Your task to perform on an android device: open app "Booking.com: Hotels and more" (install if not already installed) and enter user name: "misting@outlook.com" and password: "blandly" Image 0: 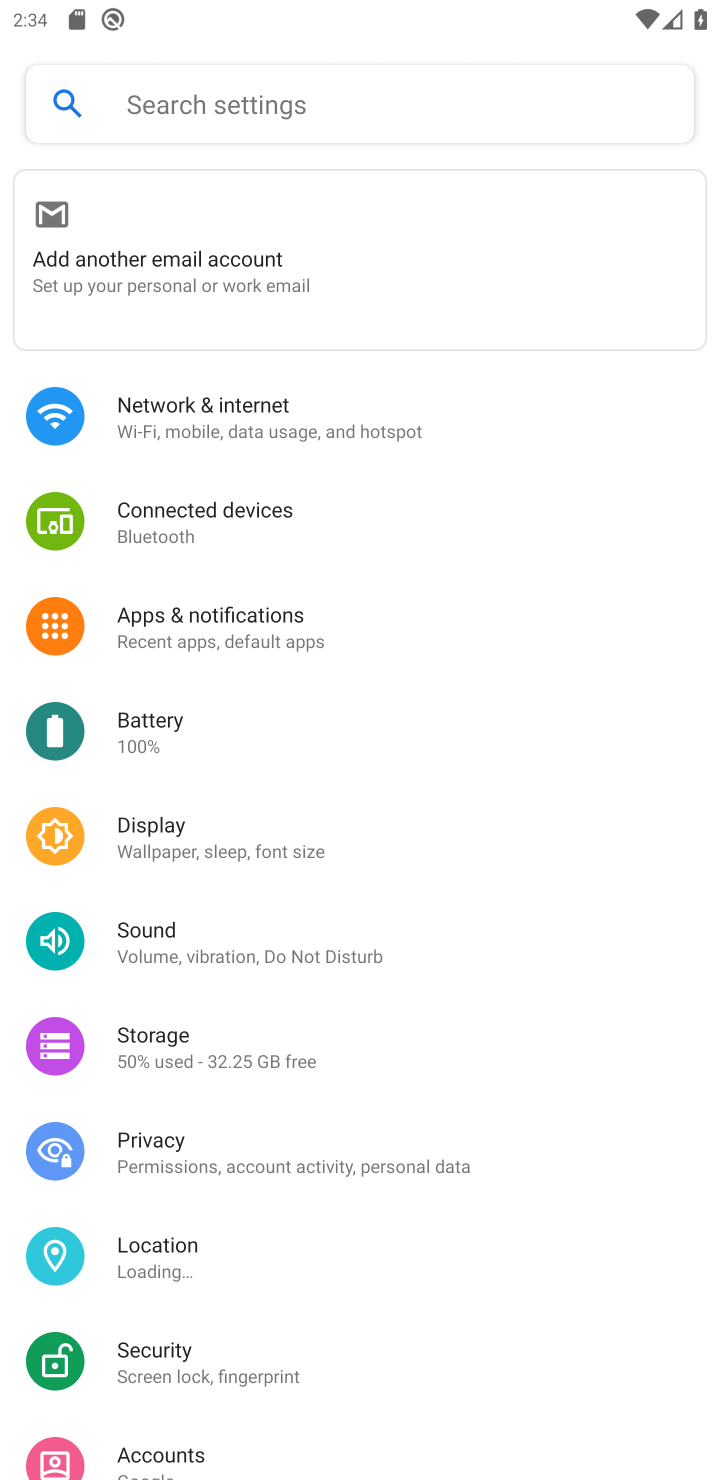
Step 0: press home button
Your task to perform on an android device: open app "Booking.com: Hotels and more" (install if not already installed) and enter user name: "misting@outlook.com" and password: "blandly" Image 1: 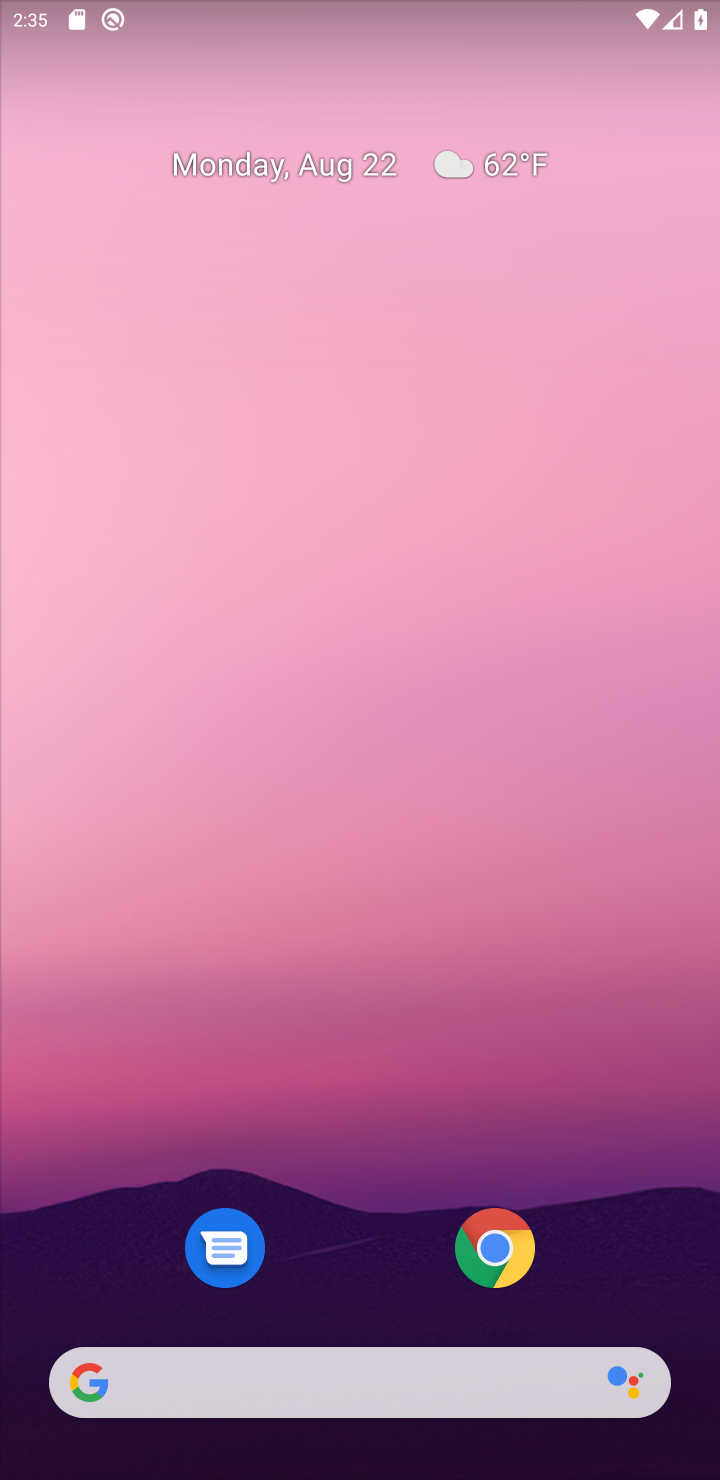
Step 1: drag from (289, 869) to (527, 26)
Your task to perform on an android device: open app "Booking.com: Hotels and more" (install if not already installed) and enter user name: "misting@outlook.com" and password: "blandly" Image 2: 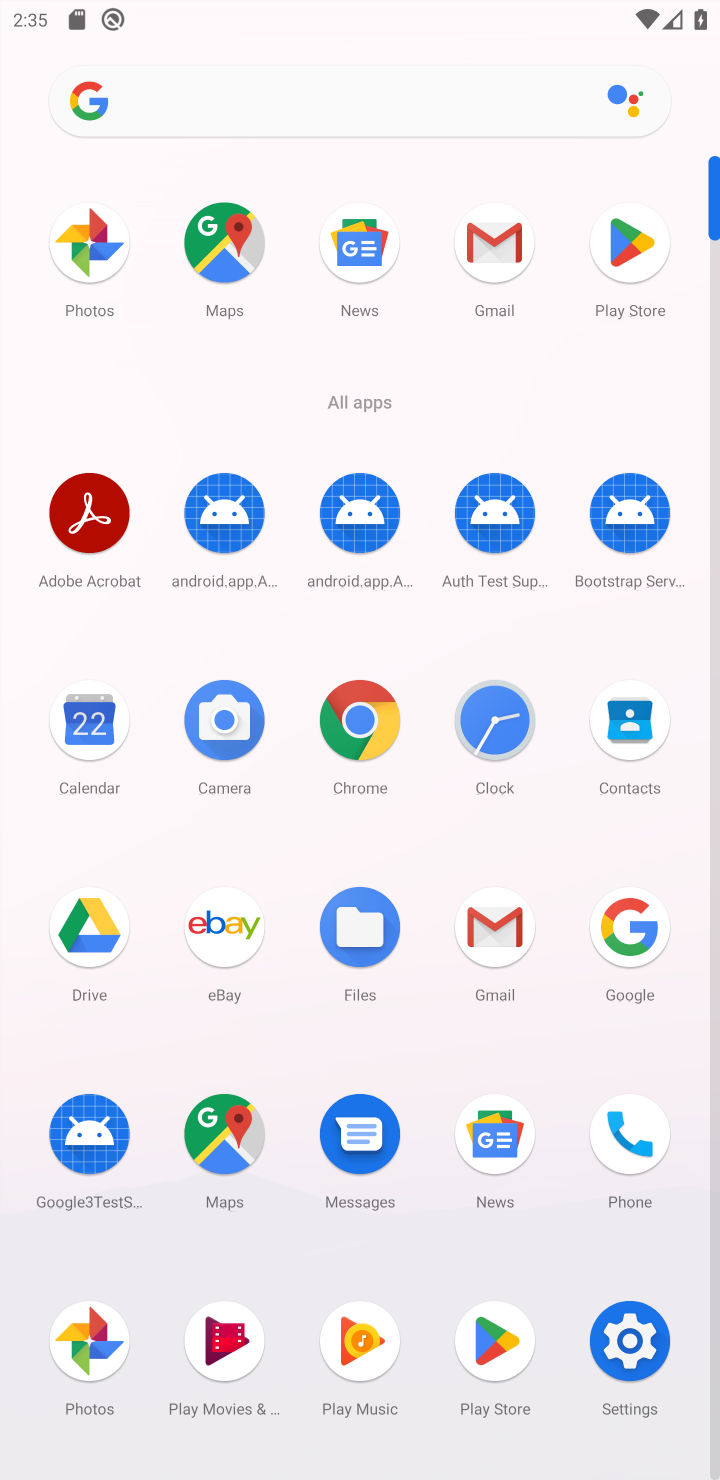
Step 2: click (635, 242)
Your task to perform on an android device: open app "Booking.com: Hotels and more" (install if not already installed) and enter user name: "misting@outlook.com" and password: "blandly" Image 3: 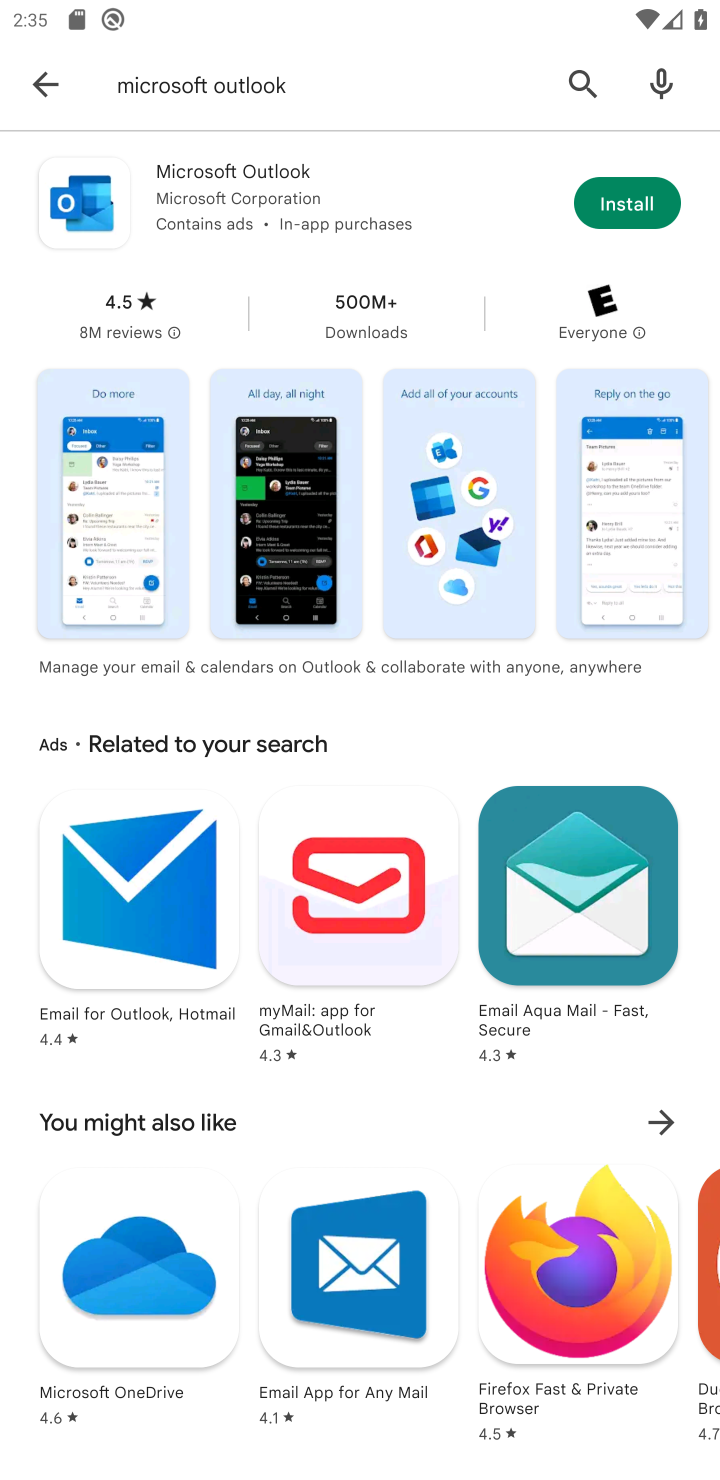
Step 3: click (321, 91)
Your task to perform on an android device: open app "Booking.com: Hotels and more" (install if not already installed) and enter user name: "misting@outlook.com" and password: "blandly" Image 4: 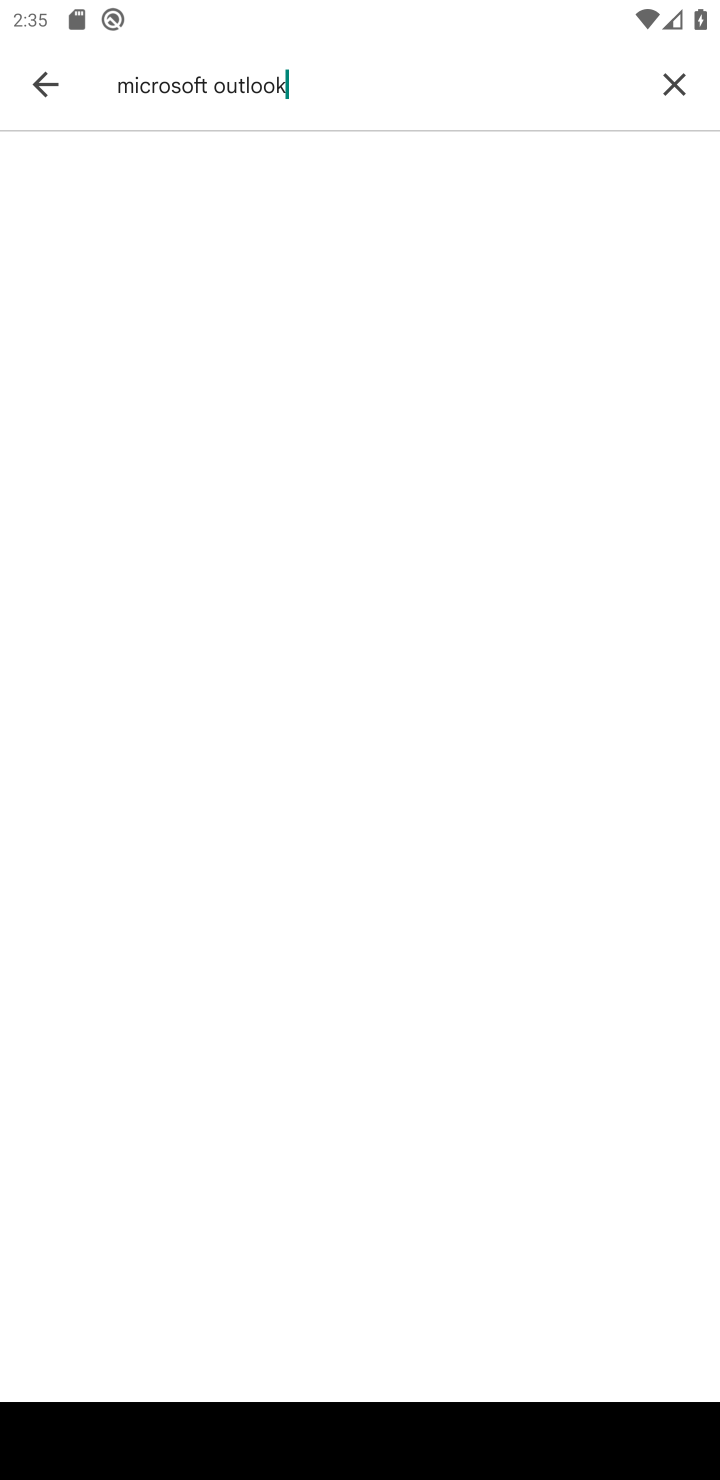
Step 4: click (673, 69)
Your task to perform on an android device: open app "Booking.com: Hotels and more" (install if not already installed) and enter user name: "misting@outlook.com" and password: "blandly" Image 5: 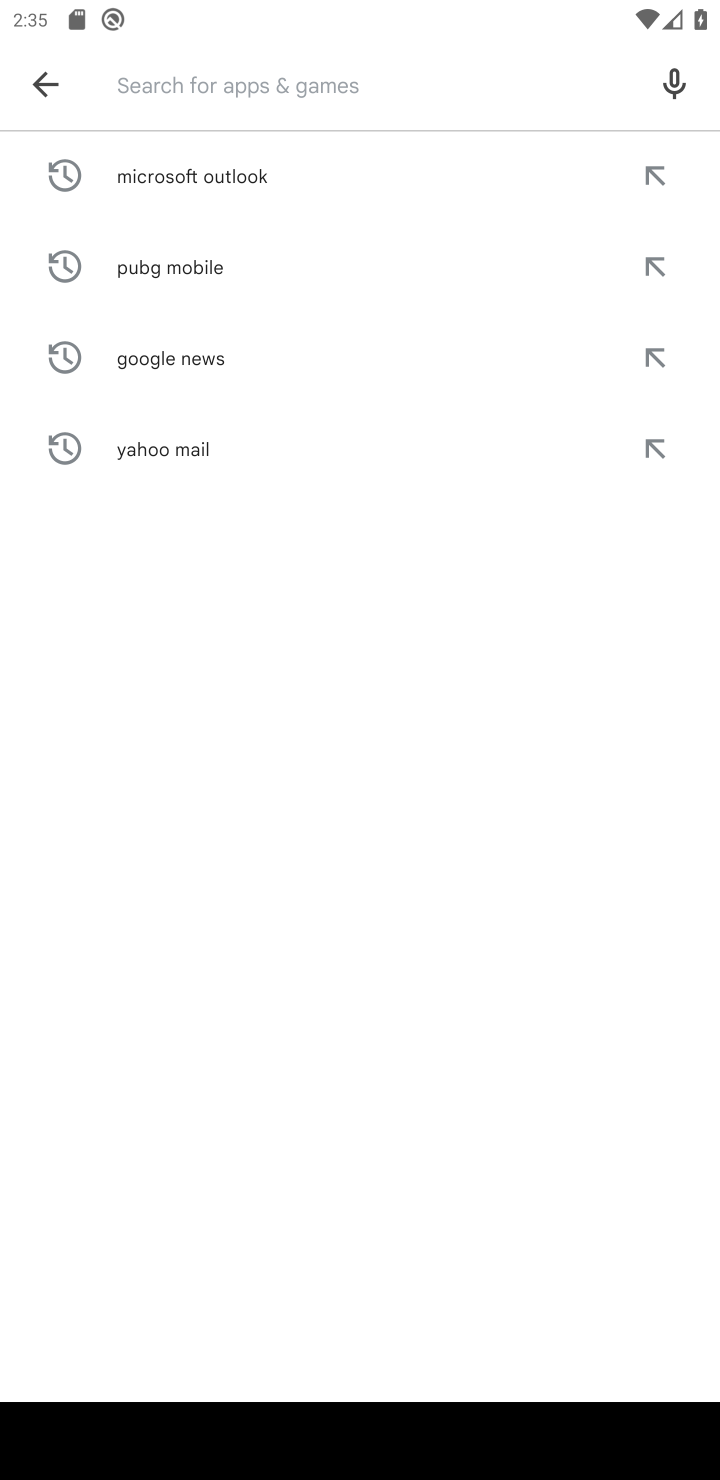
Step 5: type "Booking.com"
Your task to perform on an android device: open app "Booking.com: Hotels and more" (install if not already installed) and enter user name: "misting@outlook.com" and password: "blandly" Image 6: 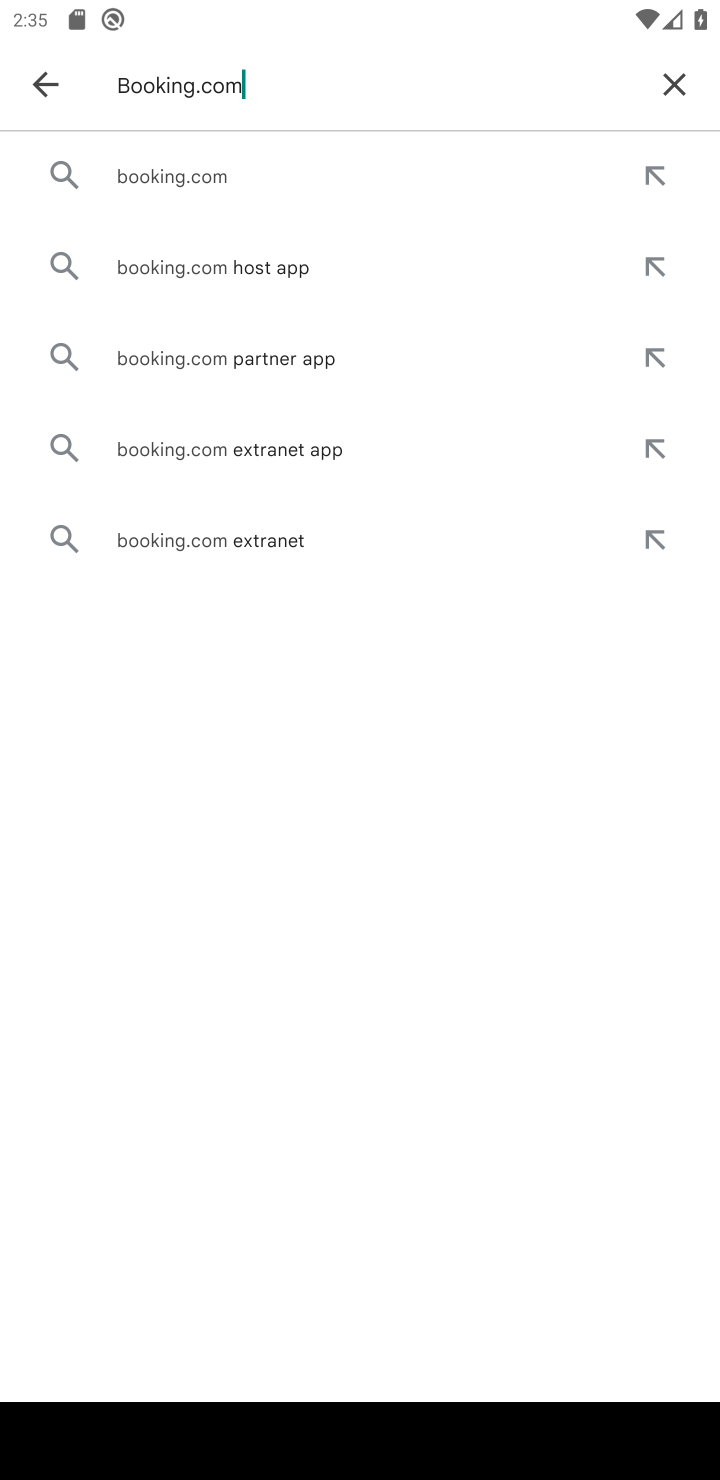
Step 6: click (197, 180)
Your task to perform on an android device: open app "Booking.com: Hotels and more" (install if not already installed) and enter user name: "misting@outlook.com" and password: "blandly" Image 7: 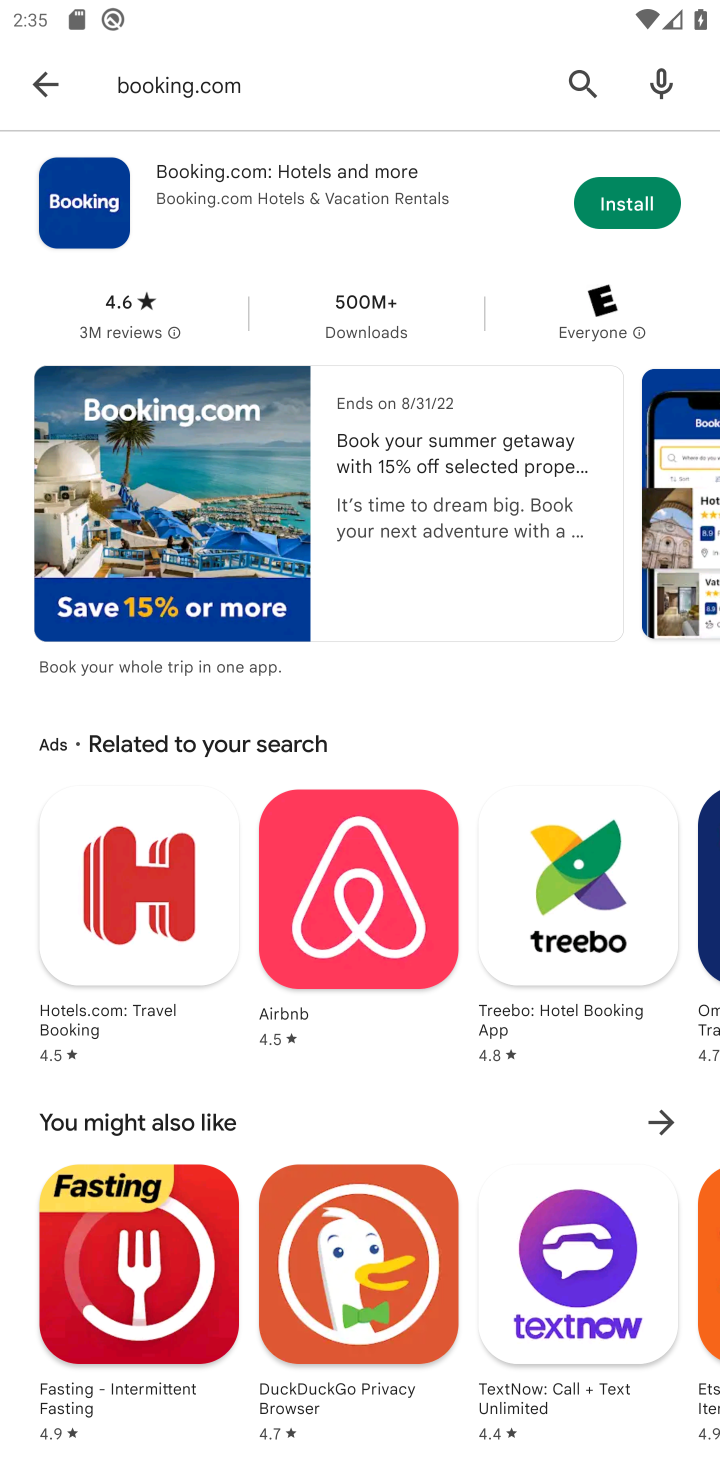
Step 7: click (618, 208)
Your task to perform on an android device: open app "Booking.com: Hotels and more" (install if not already installed) and enter user name: "misting@outlook.com" and password: "blandly" Image 8: 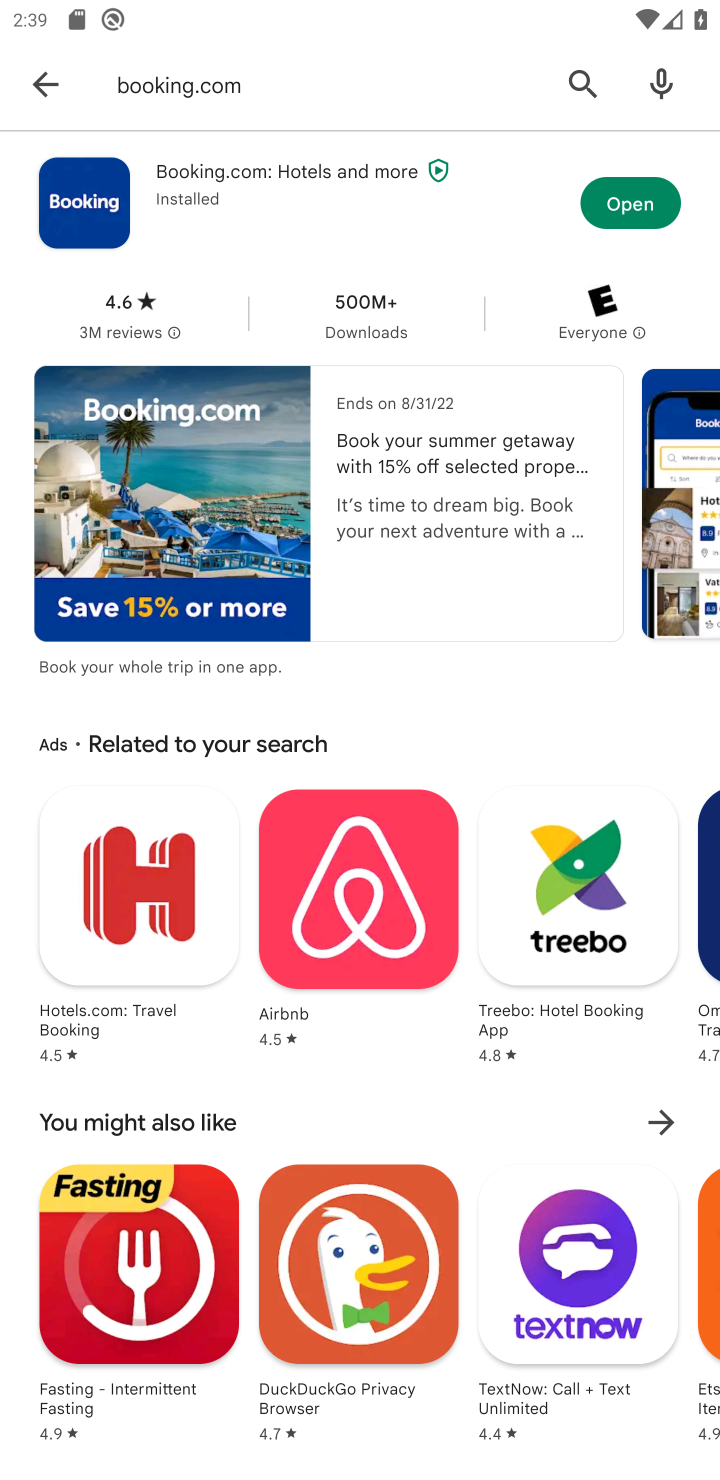
Step 8: click (617, 198)
Your task to perform on an android device: open app "Booking.com: Hotels and more" (install if not already installed) and enter user name: "misting@outlook.com" and password: "blandly" Image 9: 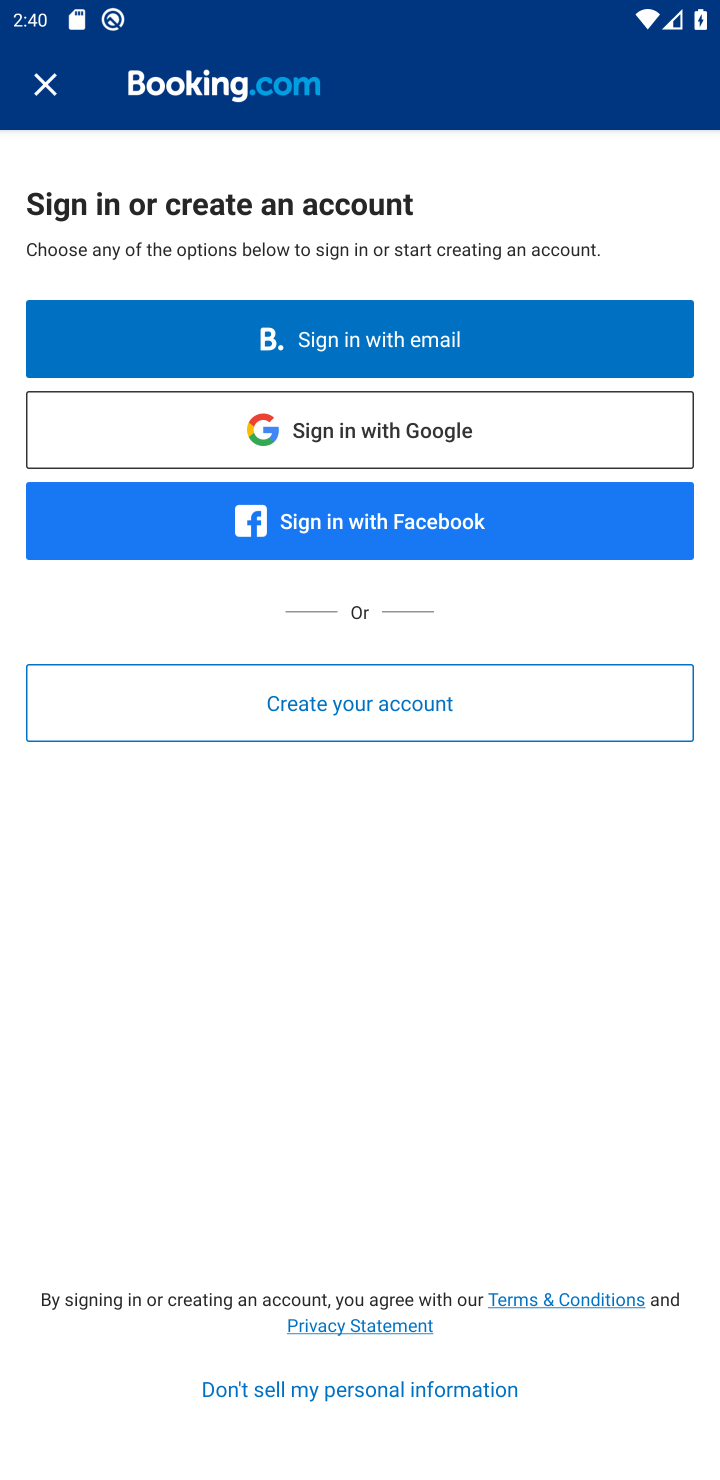
Step 9: click (403, 706)
Your task to perform on an android device: open app "Booking.com: Hotels and more" (install if not already installed) and enter user name: "misting@outlook.com" and password: "blandly" Image 10: 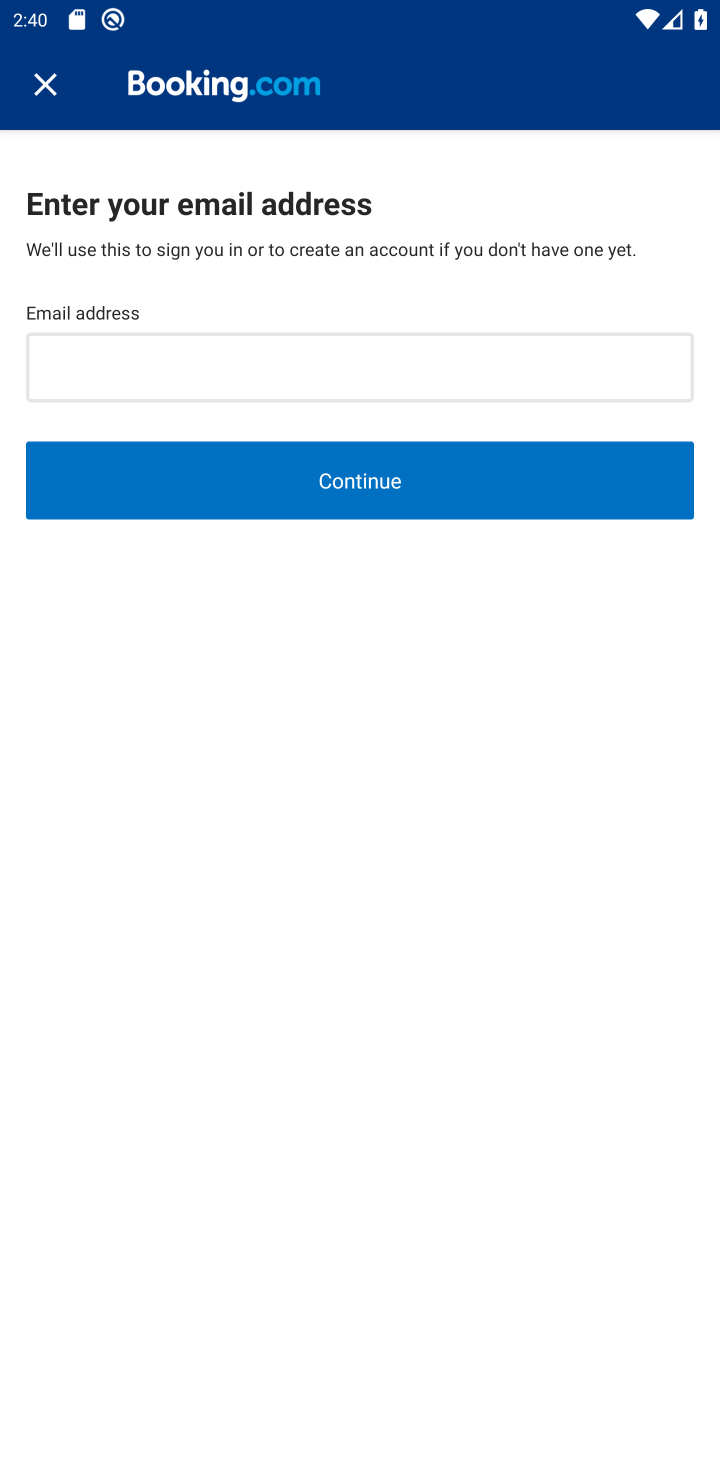
Step 10: click (336, 367)
Your task to perform on an android device: open app "Booking.com: Hotels and more" (install if not already installed) and enter user name: "misting@outlook.com" and password: "blandly" Image 11: 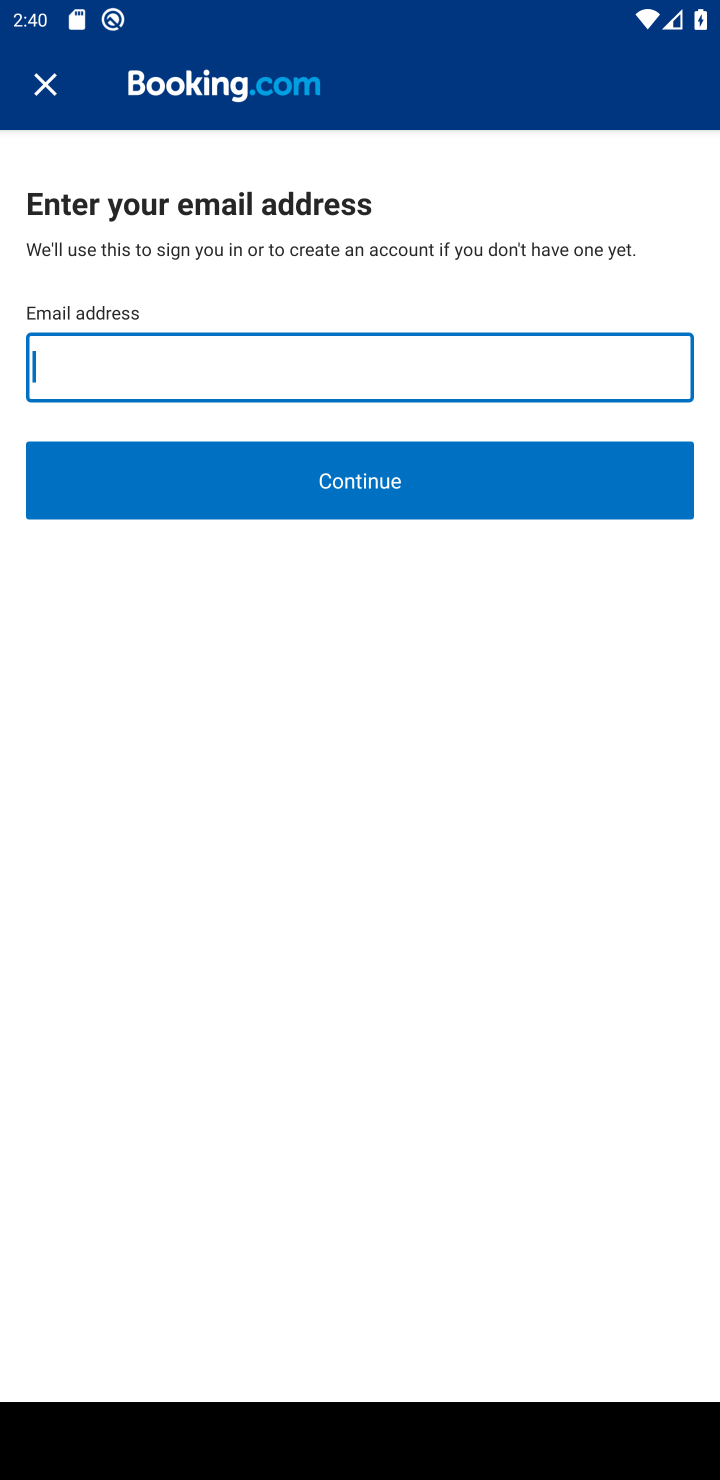
Step 11: type "misting@outlook.com"
Your task to perform on an android device: open app "Booking.com: Hotels and more" (install if not already installed) and enter user name: "misting@outlook.com" and password: "blandly" Image 12: 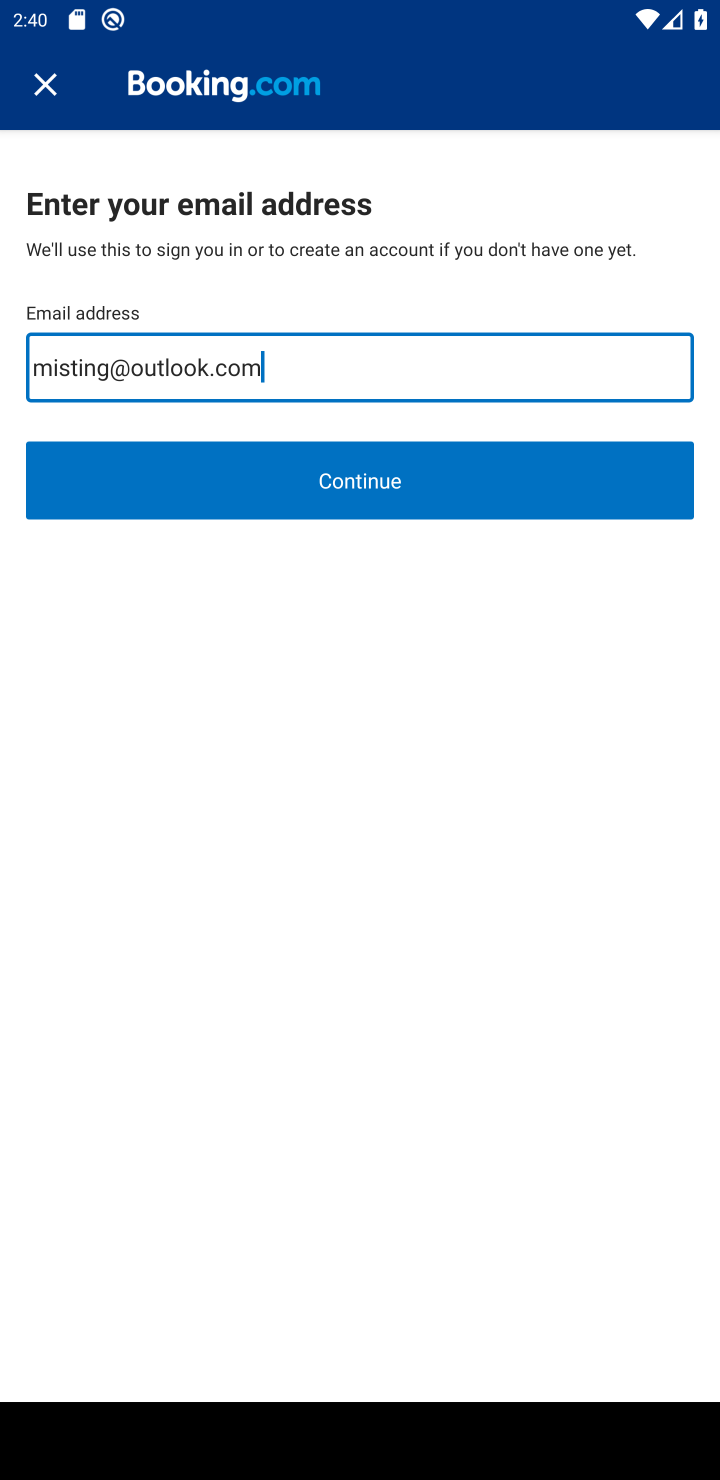
Step 12: click (564, 367)
Your task to perform on an android device: open app "Booking.com: Hotels and more" (install if not already installed) and enter user name: "misting@outlook.com" and password: "blandly" Image 13: 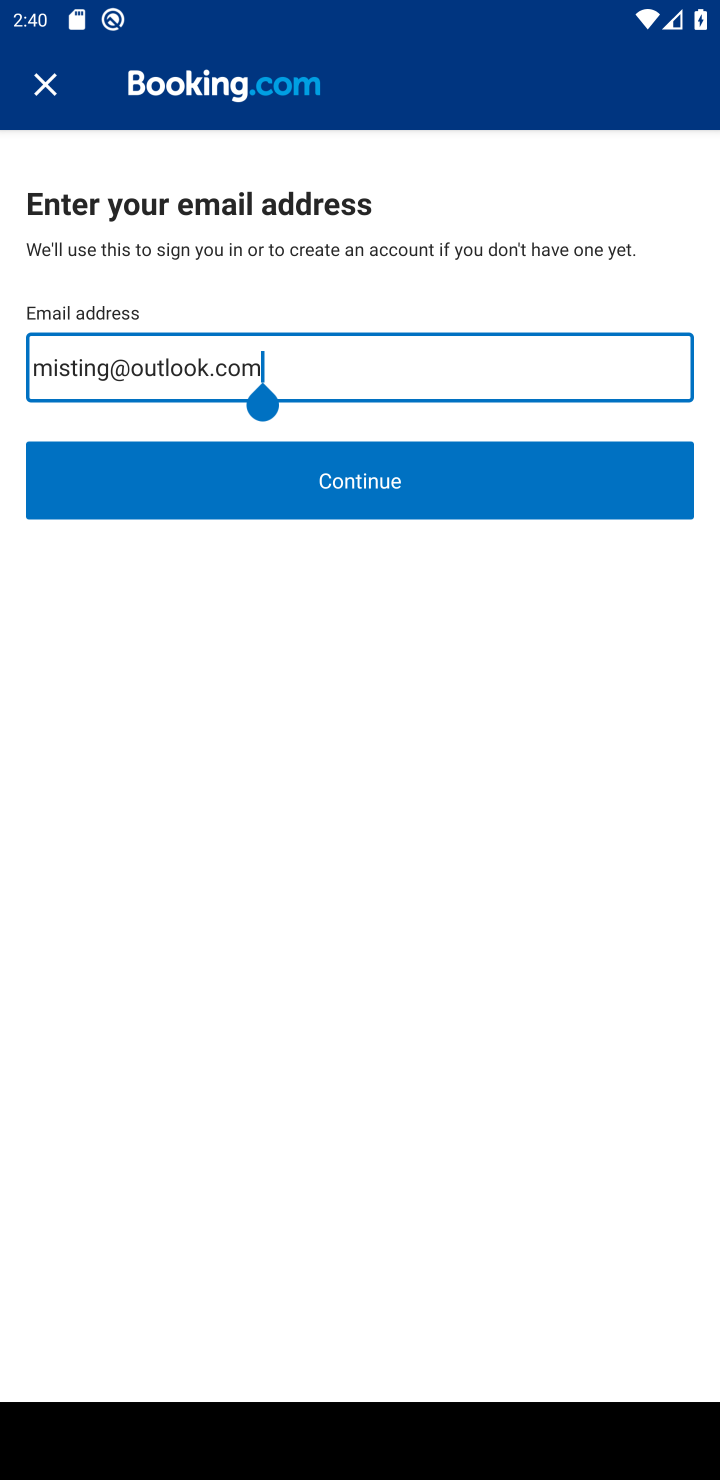
Step 13: click (495, 494)
Your task to perform on an android device: open app "Booking.com: Hotels and more" (install if not already installed) and enter user name: "misting@outlook.com" and password: "blandly" Image 14: 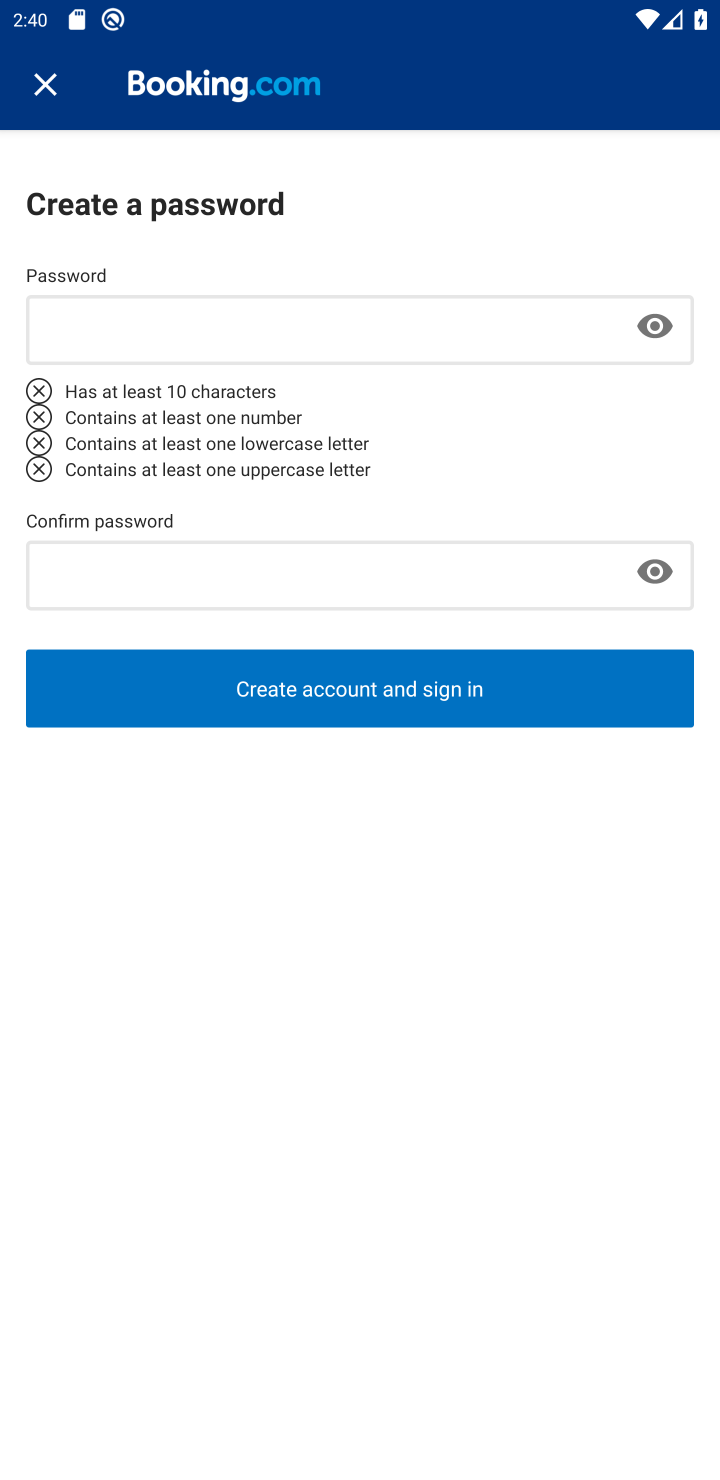
Step 14: click (336, 321)
Your task to perform on an android device: open app "Booking.com: Hotels and more" (install if not already installed) and enter user name: "misting@outlook.com" and password: "blandly" Image 15: 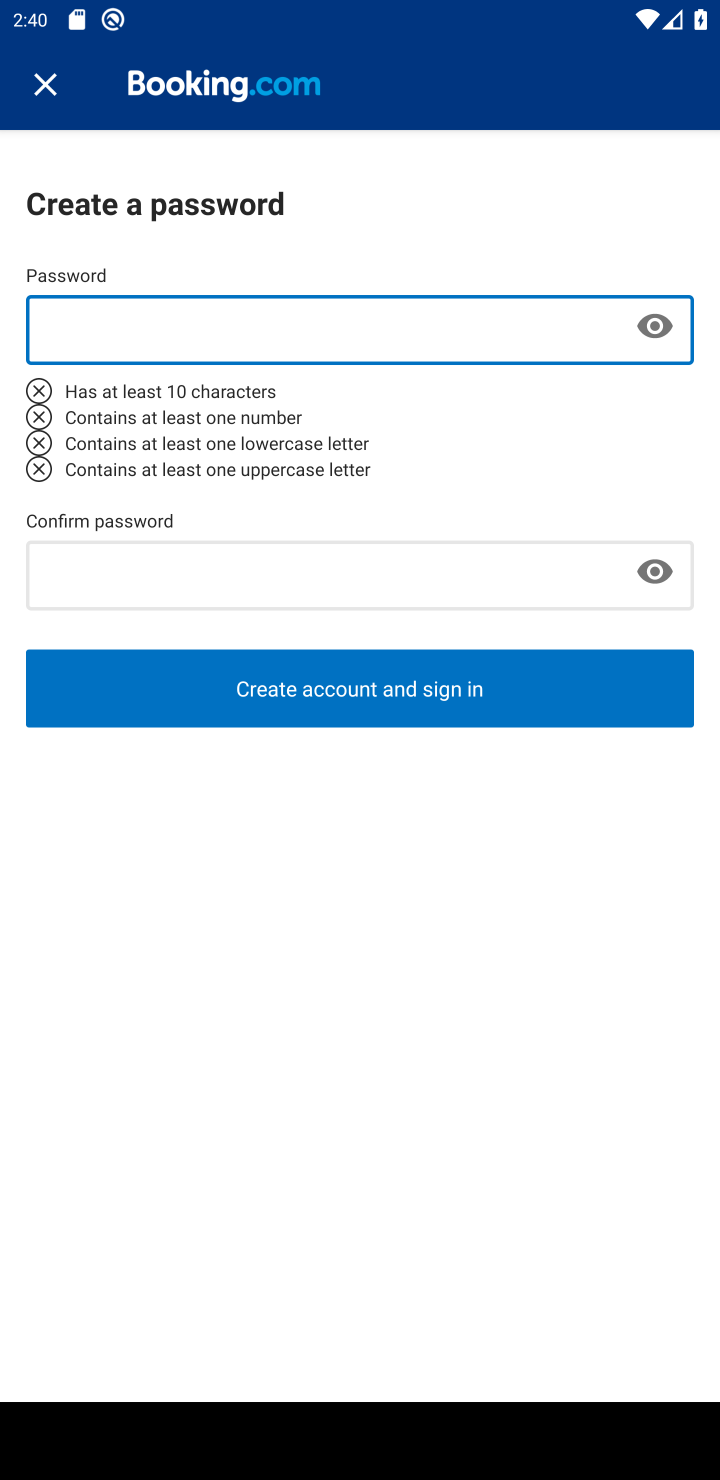
Step 15: type "Blandly"
Your task to perform on an android device: open app "Booking.com: Hotels and more" (install if not already installed) and enter user name: "misting@outlook.com" and password: "blandly" Image 16: 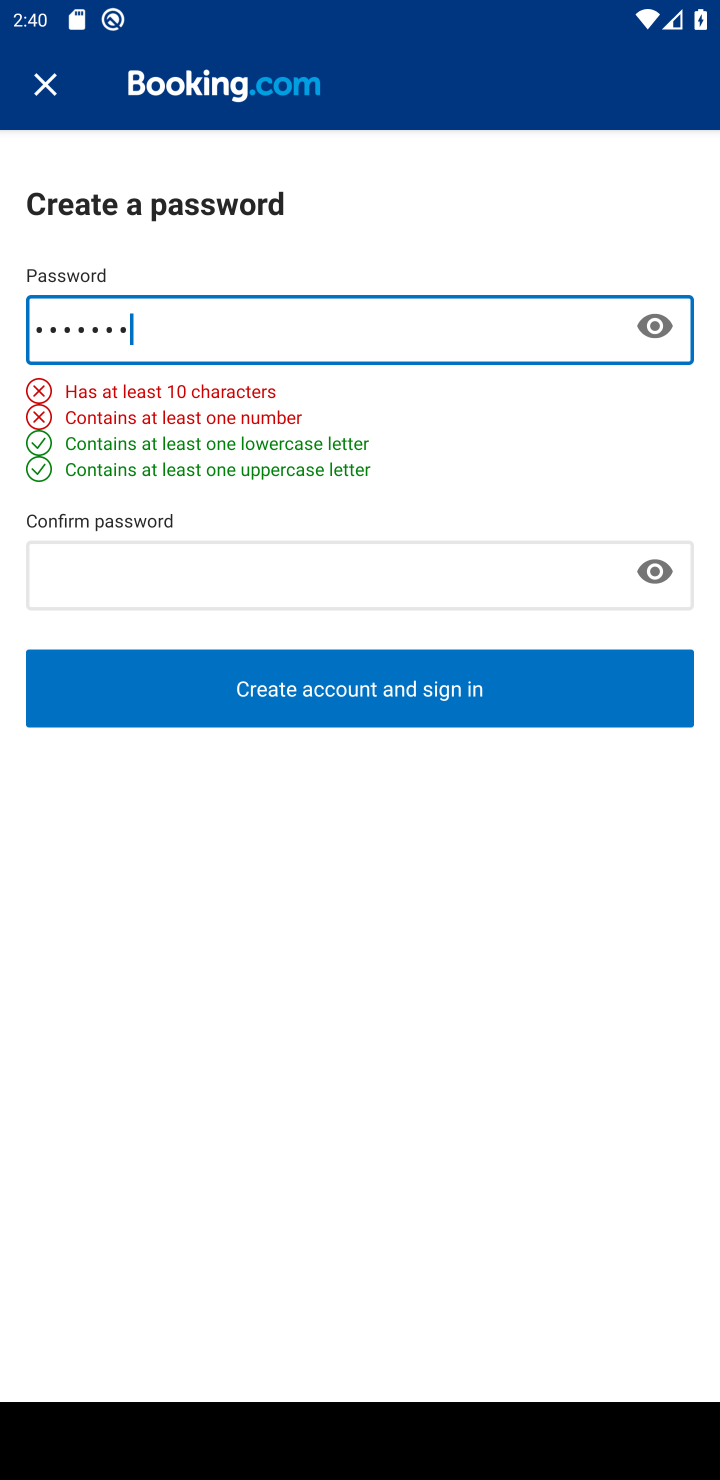
Step 16: click (182, 579)
Your task to perform on an android device: open app "Booking.com: Hotels and more" (install if not already installed) and enter user name: "misting@outlook.com" and password: "blandly" Image 17: 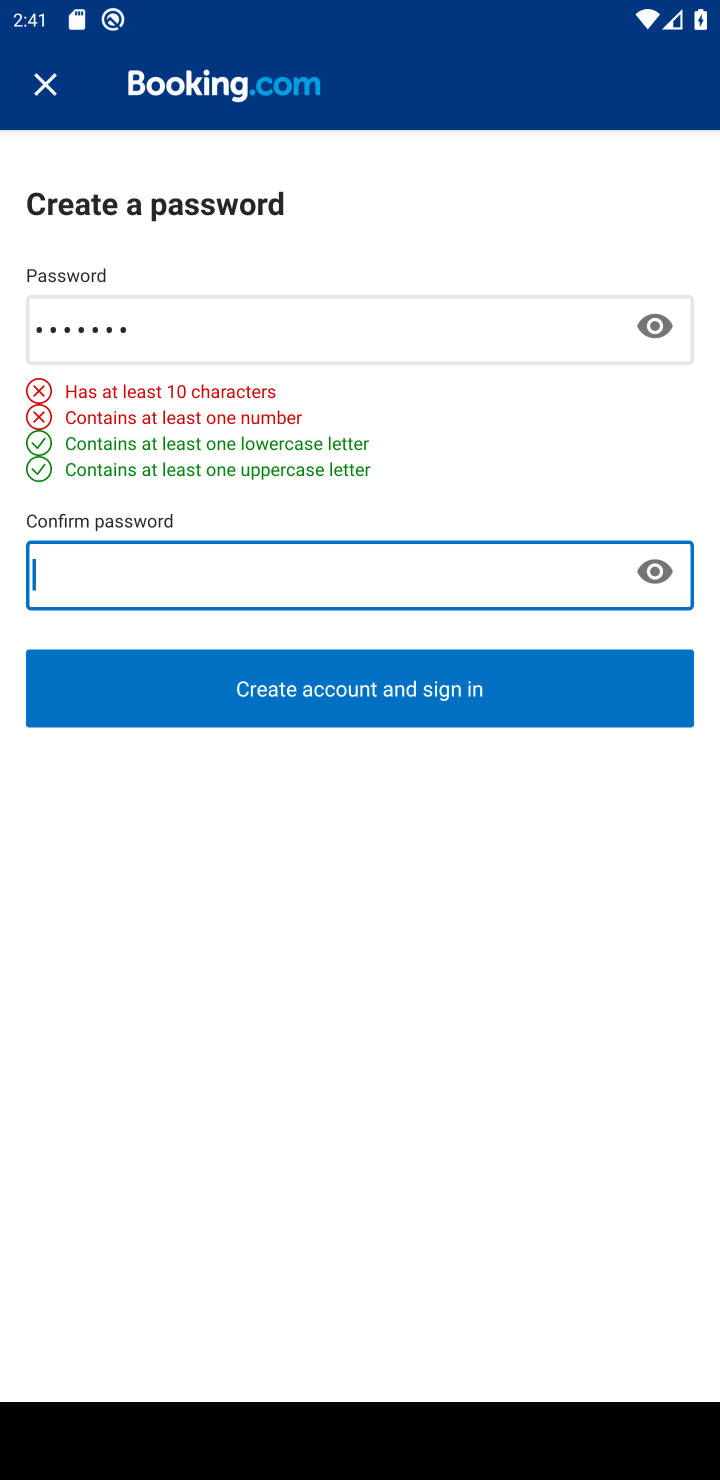
Step 17: type "blandly"
Your task to perform on an android device: open app "Booking.com: Hotels and more" (install if not already installed) and enter user name: "misting@outlook.com" and password: "blandly" Image 18: 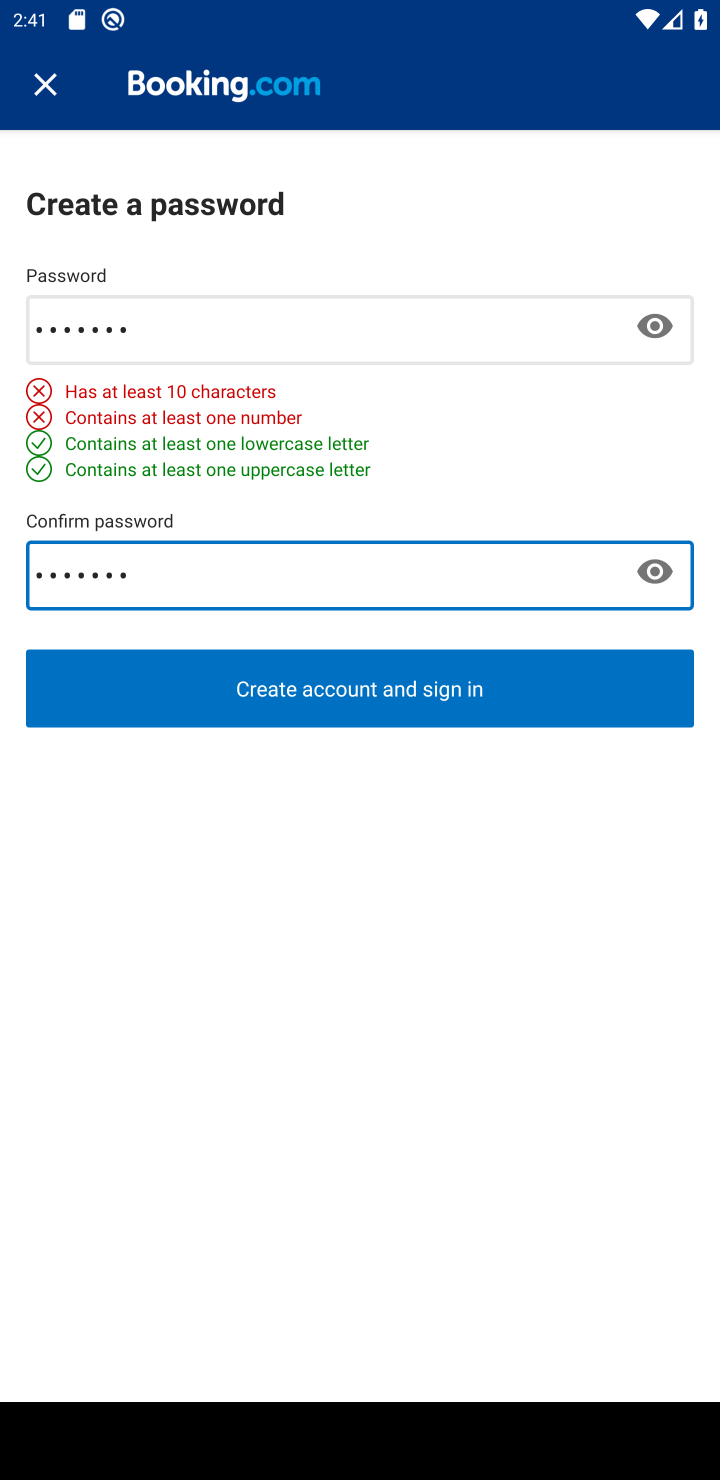
Step 18: click (515, 699)
Your task to perform on an android device: open app "Booking.com: Hotels and more" (install if not already installed) and enter user name: "misting@outlook.com" and password: "blandly" Image 19: 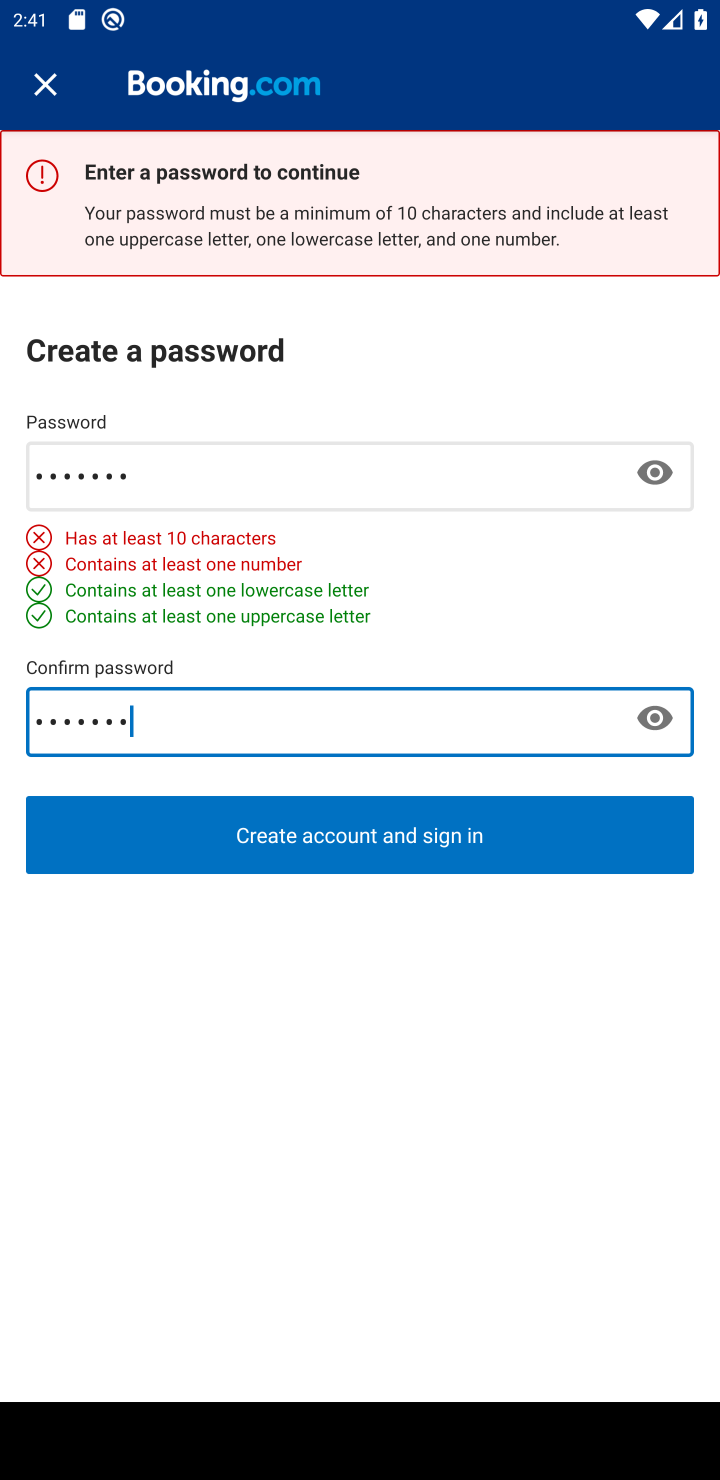
Step 19: task complete